Your task to perform on an android device: add a contact in the contacts app Image 0: 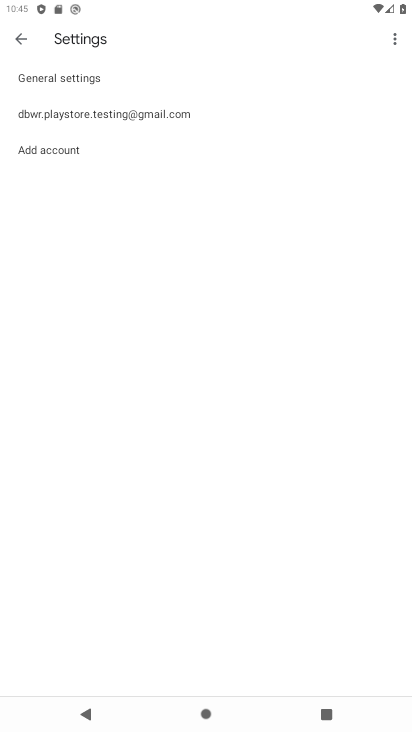
Step 0: press home button
Your task to perform on an android device: add a contact in the contacts app Image 1: 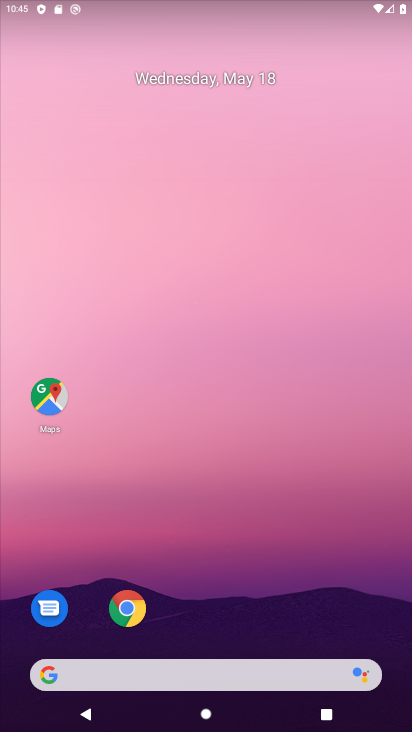
Step 1: drag from (212, 637) to (317, 68)
Your task to perform on an android device: add a contact in the contacts app Image 2: 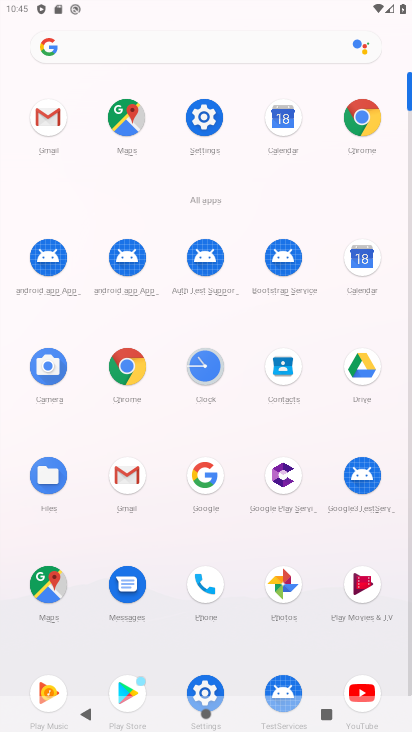
Step 2: click (286, 367)
Your task to perform on an android device: add a contact in the contacts app Image 3: 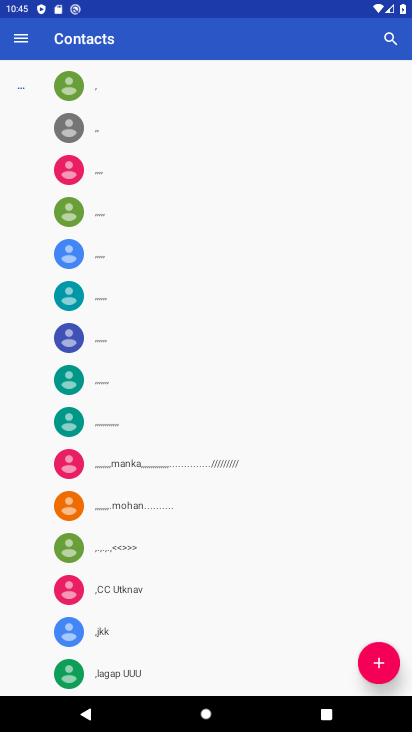
Step 3: click (381, 654)
Your task to perform on an android device: add a contact in the contacts app Image 4: 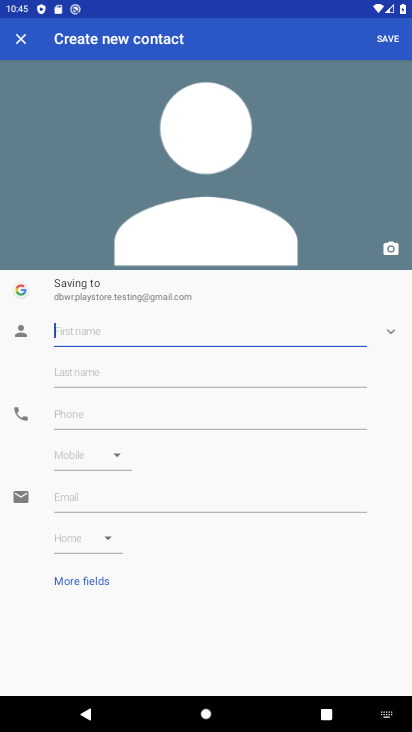
Step 4: type "sdfgh"
Your task to perform on an android device: add a contact in the contacts app Image 5: 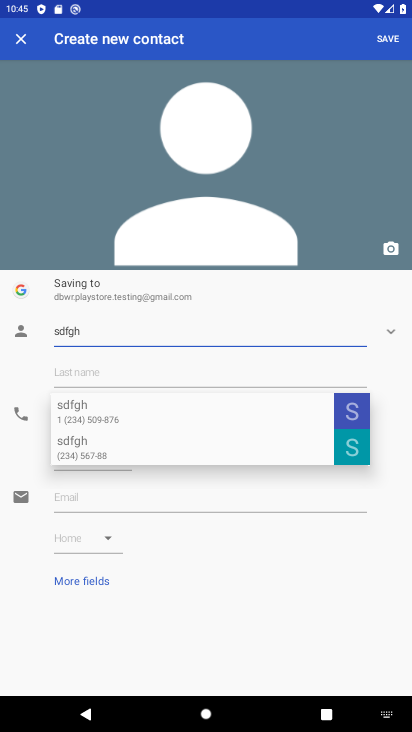
Step 5: click (321, 557)
Your task to perform on an android device: add a contact in the contacts app Image 6: 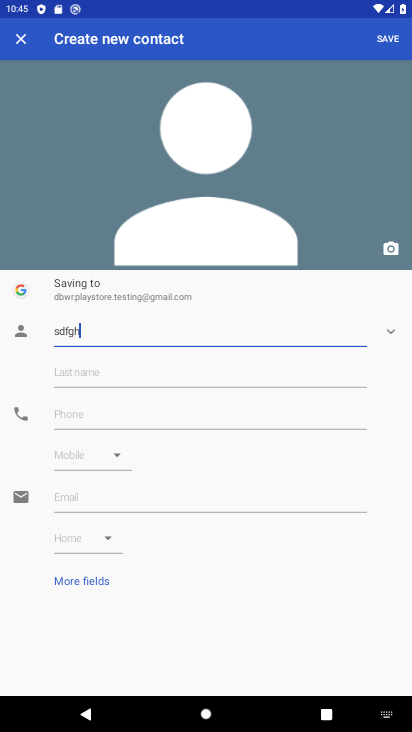
Step 6: click (196, 405)
Your task to perform on an android device: add a contact in the contacts app Image 7: 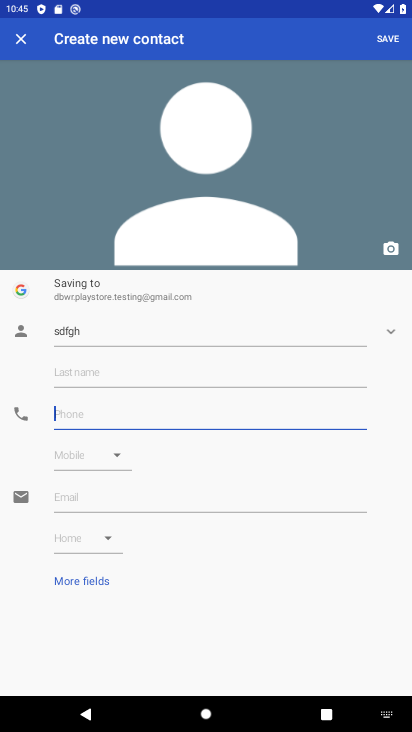
Step 7: type "456789"
Your task to perform on an android device: add a contact in the contacts app Image 8: 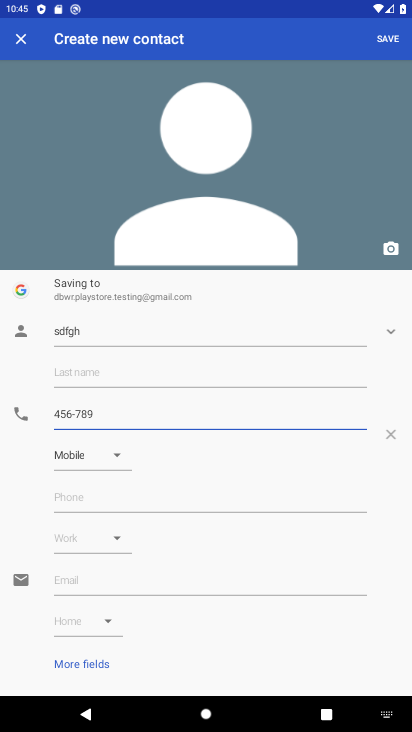
Step 8: click (386, 22)
Your task to perform on an android device: add a contact in the contacts app Image 9: 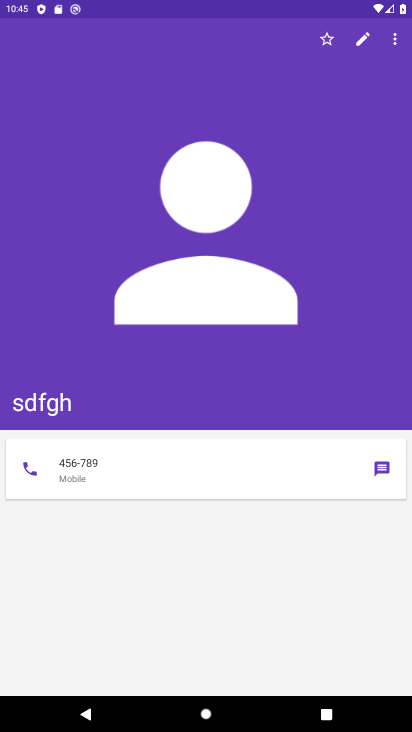
Step 9: task complete